Your task to perform on an android device: Go to wifi settings Image 0: 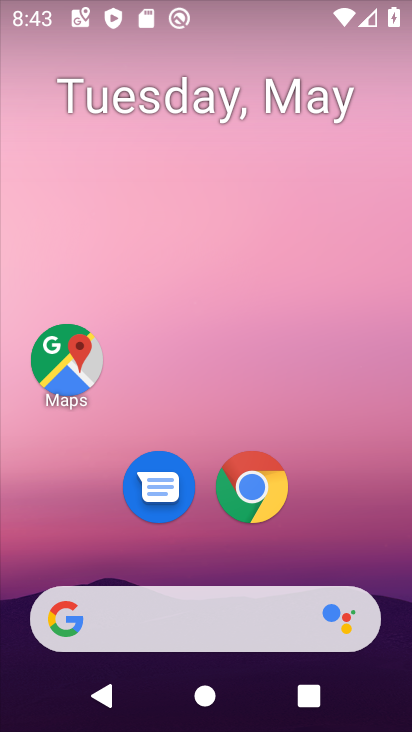
Step 0: drag from (366, 544) to (359, 131)
Your task to perform on an android device: Go to wifi settings Image 1: 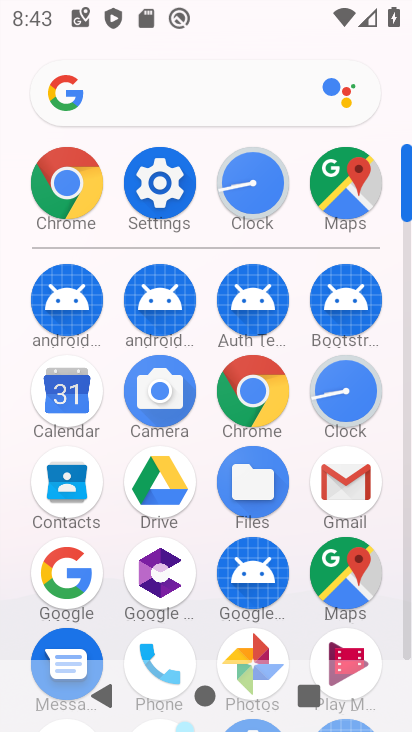
Step 1: click (168, 198)
Your task to perform on an android device: Go to wifi settings Image 2: 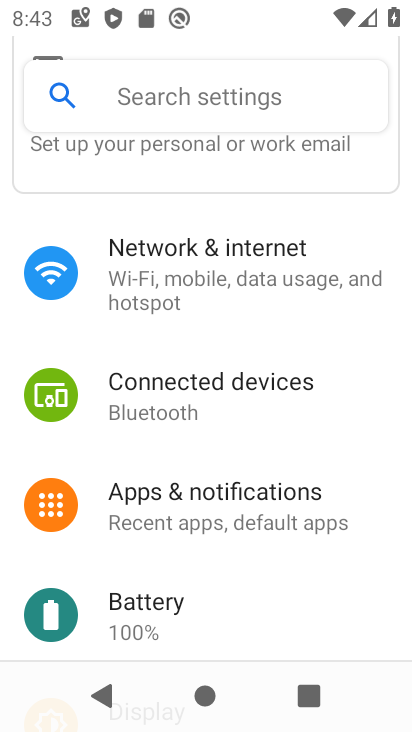
Step 2: click (304, 269)
Your task to perform on an android device: Go to wifi settings Image 3: 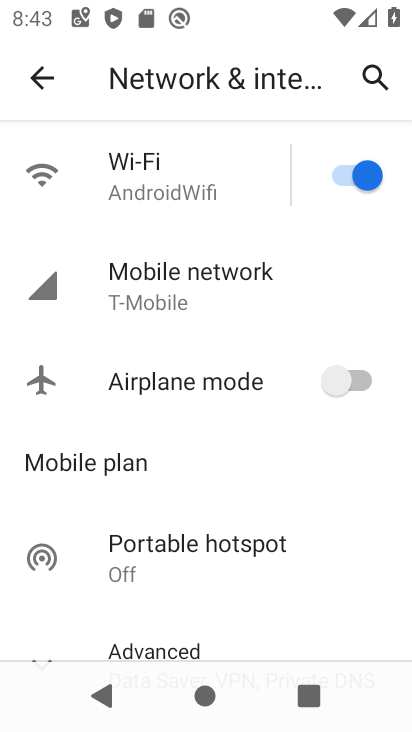
Step 3: click (144, 174)
Your task to perform on an android device: Go to wifi settings Image 4: 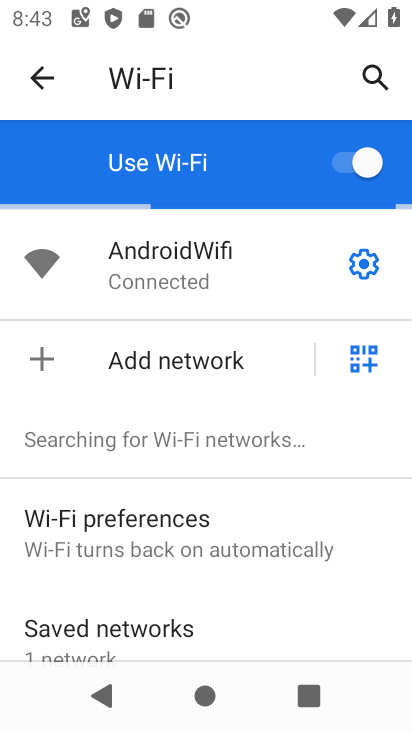
Step 4: task complete